Your task to perform on an android device: open app "Microsoft Authenticator" (install if not already installed) and go to login screen Image 0: 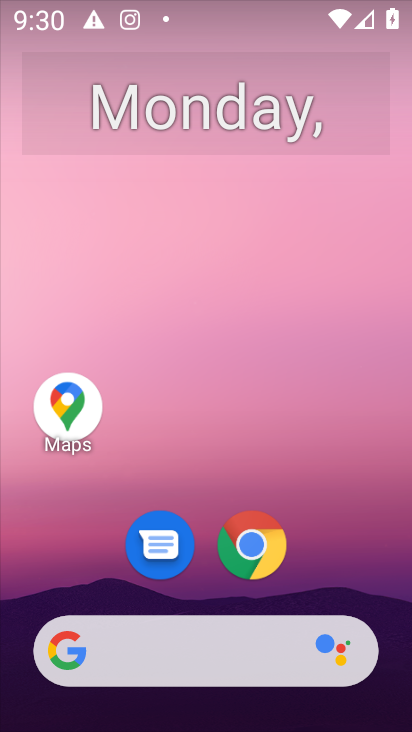
Step 0: press home button
Your task to perform on an android device: open app "Microsoft Authenticator" (install if not already installed) and go to login screen Image 1: 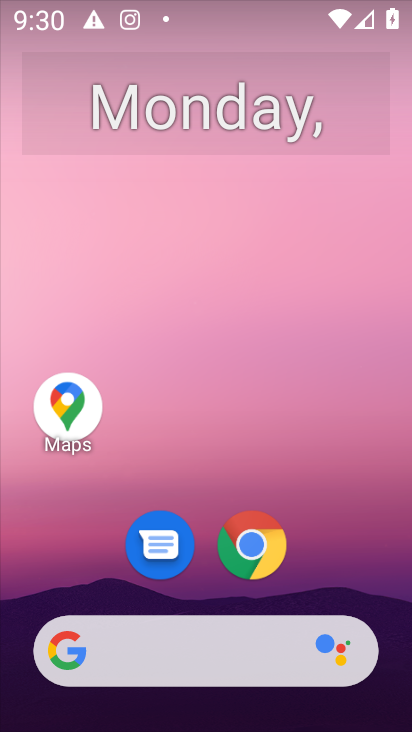
Step 1: drag from (367, 592) to (357, 111)
Your task to perform on an android device: open app "Microsoft Authenticator" (install if not already installed) and go to login screen Image 2: 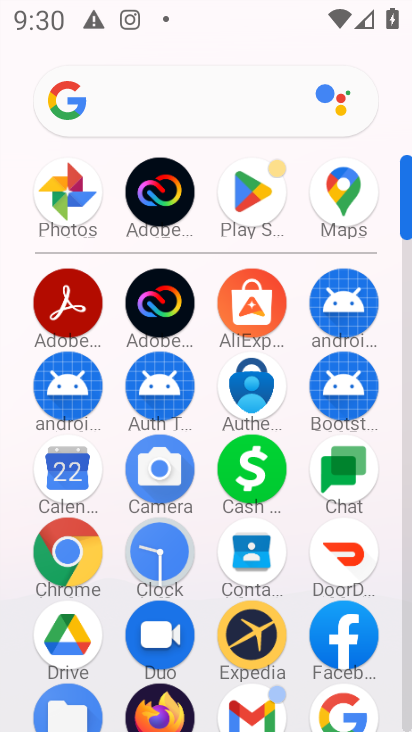
Step 2: click (251, 204)
Your task to perform on an android device: open app "Microsoft Authenticator" (install if not already installed) and go to login screen Image 3: 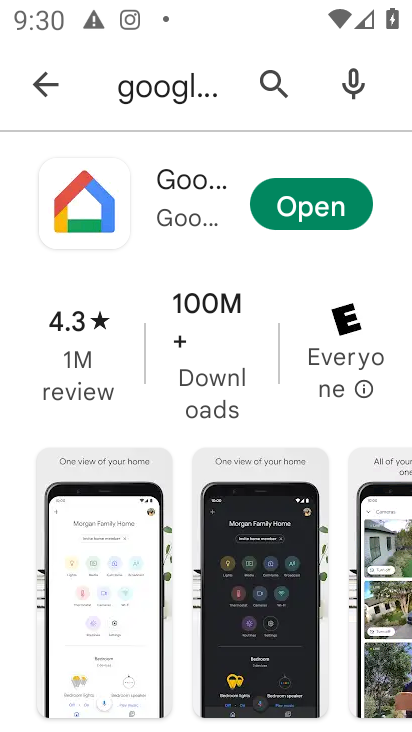
Step 3: press back button
Your task to perform on an android device: open app "Microsoft Authenticator" (install if not already installed) and go to login screen Image 4: 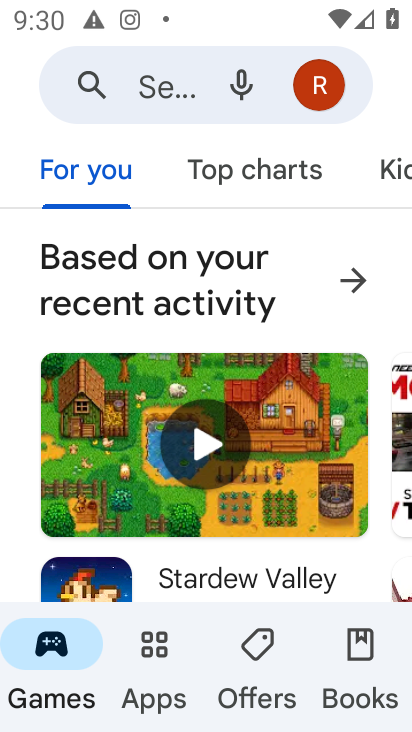
Step 4: click (165, 82)
Your task to perform on an android device: open app "Microsoft Authenticator" (install if not already installed) and go to login screen Image 5: 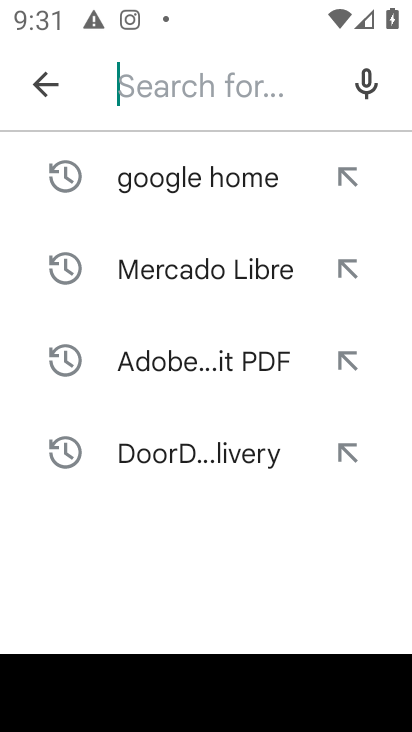
Step 5: type "Microsoft Authenticator"
Your task to perform on an android device: open app "Microsoft Authenticator" (install if not already installed) and go to login screen Image 6: 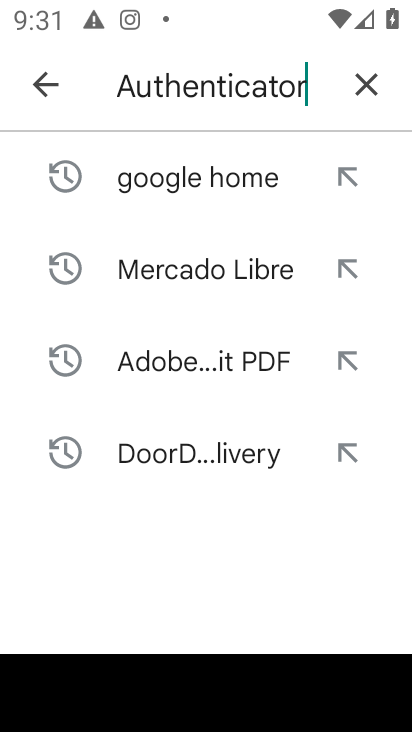
Step 6: press enter
Your task to perform on an android device: open app "Microsoft Authenticator" (install if not already installed) and go to login screen Image 7: 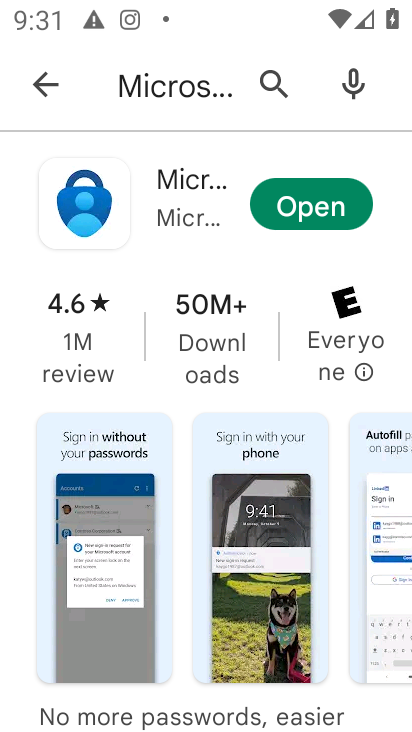
Step 7: click (329, 210)
Your task to perform on an android device: open app "Microsoft Authenticator" (install if not already installed) and go to login screen Image 8: 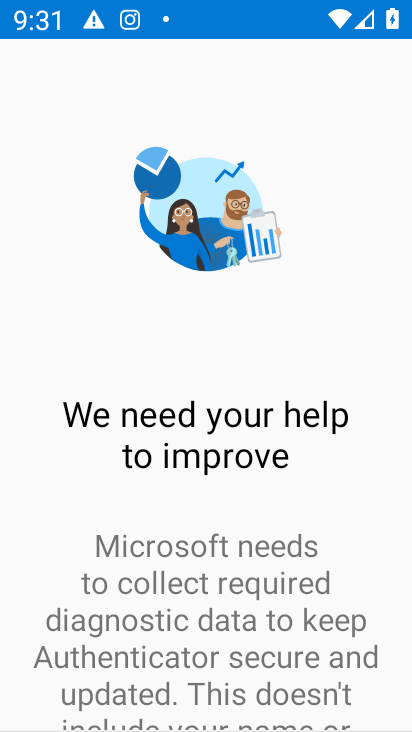
Step 8: drag from (362, 546) to (355, 254)
Your task to perform on an android device: open app "Microsoft Authenticator" (install if not already installed) and go to login screen Image 9: 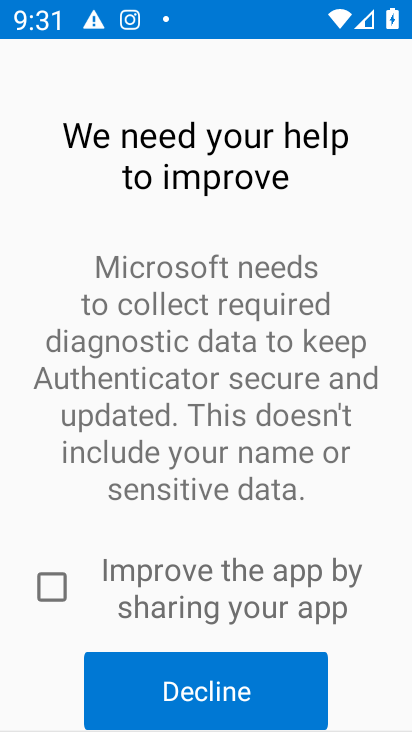
Step 9: drag from (273, 566) to (277, 255)
Your task to perform on an android device: open app "Microsoft Authenticator" (install if not already installed) and go to login screen Image 10: 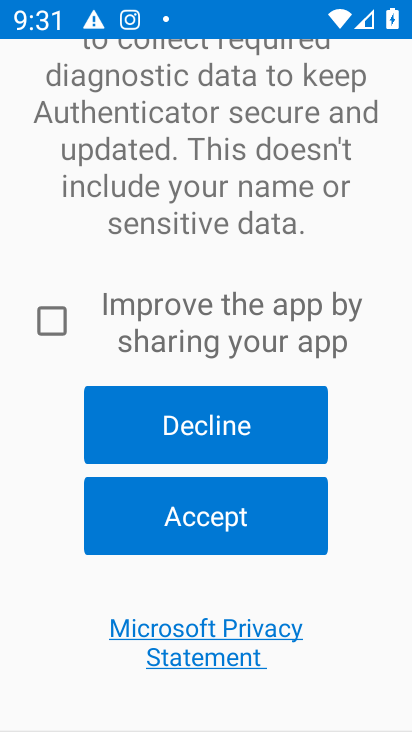
Step 10: drag from (343, 607) to (352, 284)
Your task to perform on an android device: open app "Microsoft Authenticator" (install if not already installed) and go to login screen Image 11: 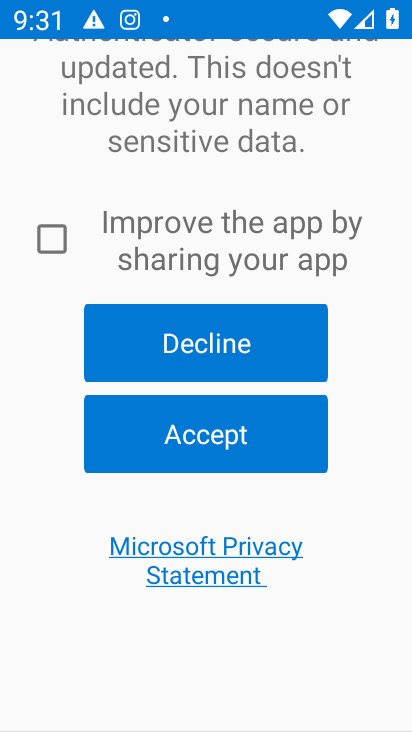
Step 11: click (61, 233)
Your task to perform on an android device: open app "Microsoft Authenticator" (install if not already installed) and go to login screen Image 12: 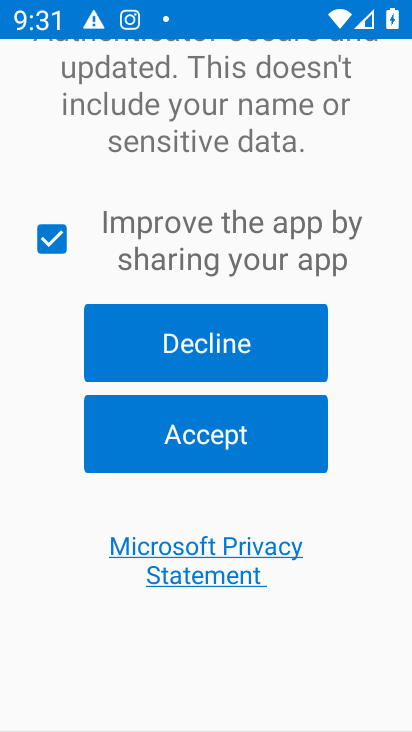
Step 12: click (231, 447)
Your task to perform on an android device: open app "Microsoft Authenticator" (install if not already installed) and go to login screen Image 13: 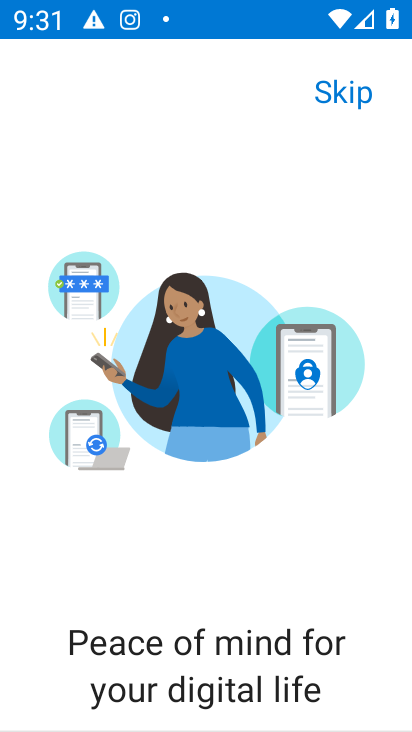
Step 13: task complete